Your task to perform on an android device: turn on data saver in the chrome app Image 0: 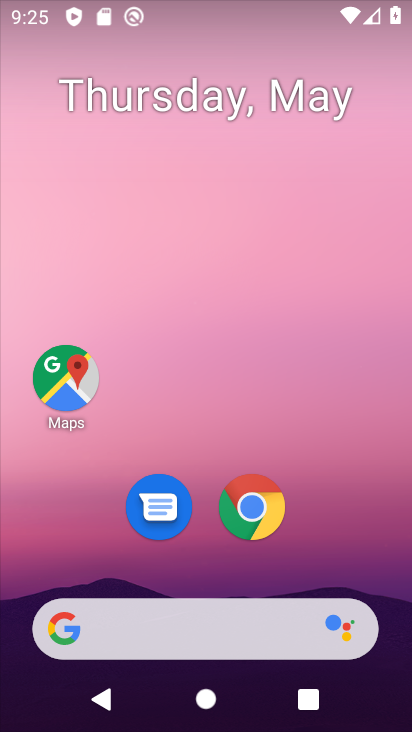
Step 0: drag from (334, 568) to (233, 164)
Your task to perform on an android device: turn on data saver in the chrome app Image 1: 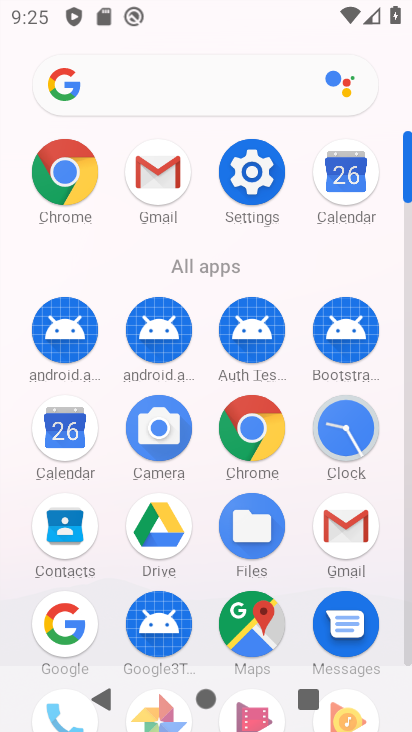
Step 1: click (64, 166)
Your task to perform on an android device: turn on data saver in the chrome app Image 2: 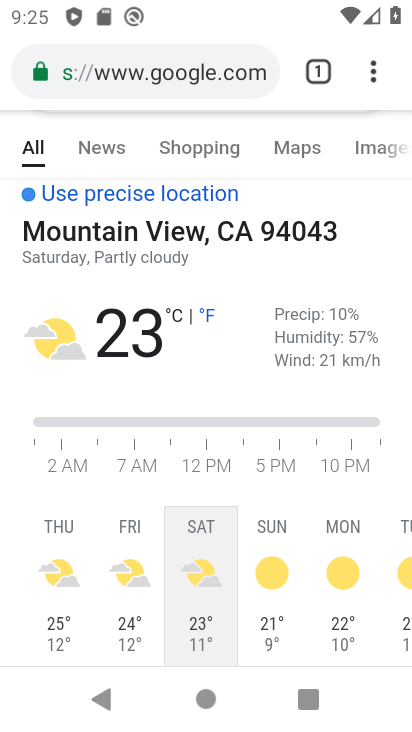
Step 2: click (374, 66)
Your task to perform on an android device: turn on data saver in the chrome app Image 3: 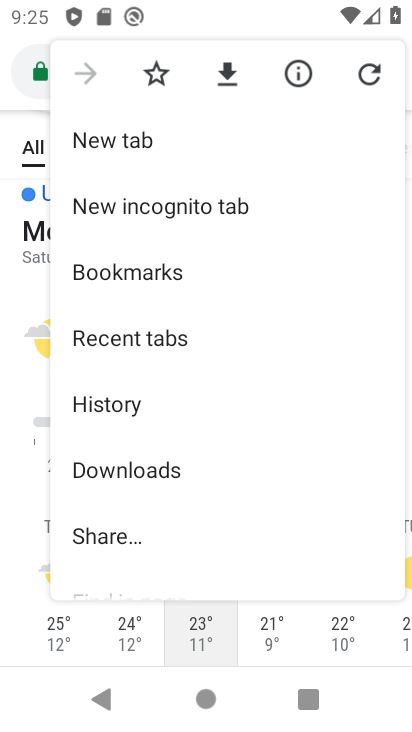
Step 3: drag from (267, 543) to (236, 181)
Your task to perform on an android device: turn on data saver in the chrome app Image 4: 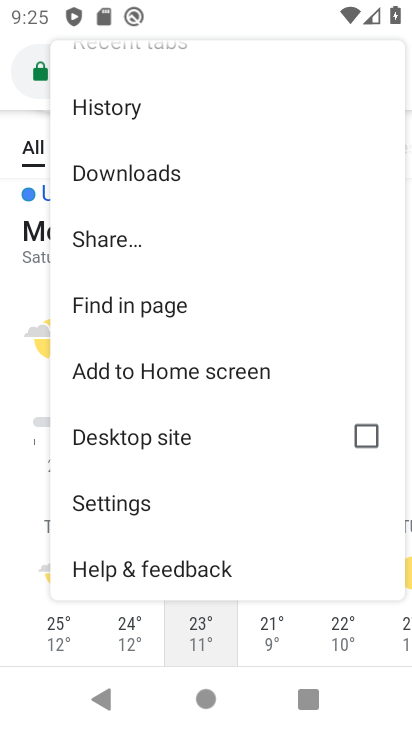
Step 4: click (186, 508)
Your task to perform on an android device: turn on data saver in the chrome app Image 5: 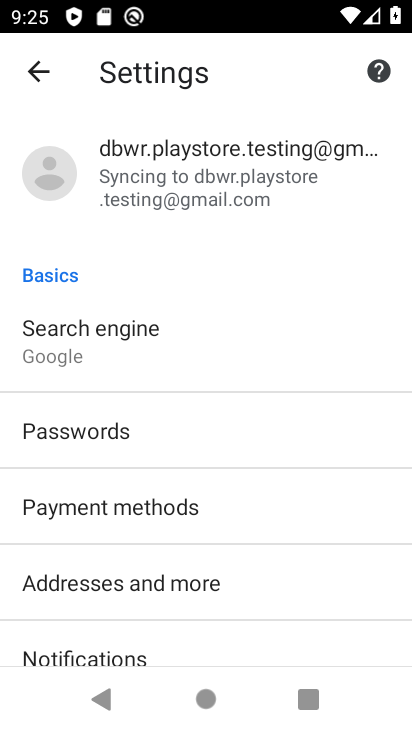
Step 5: drag from (171, 642) to (126, 207)
Your task to perform on an android device: turn on data saver in the chrome app Image 6: 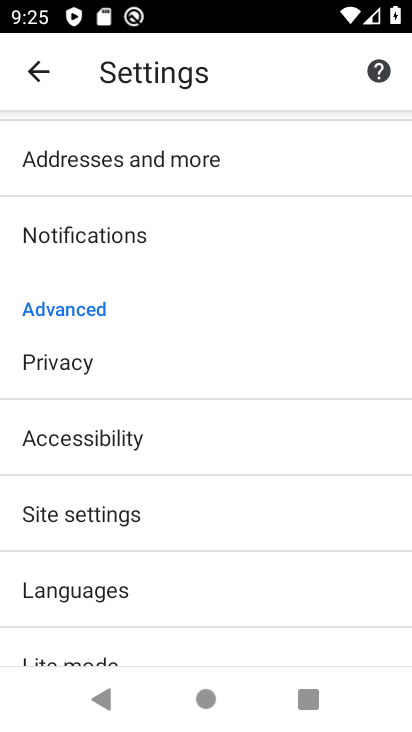
Step 6: drag from (136, 626) to (117, 403)
Your task to perform on an android device: turn on data saver in the chrome app Image 7: 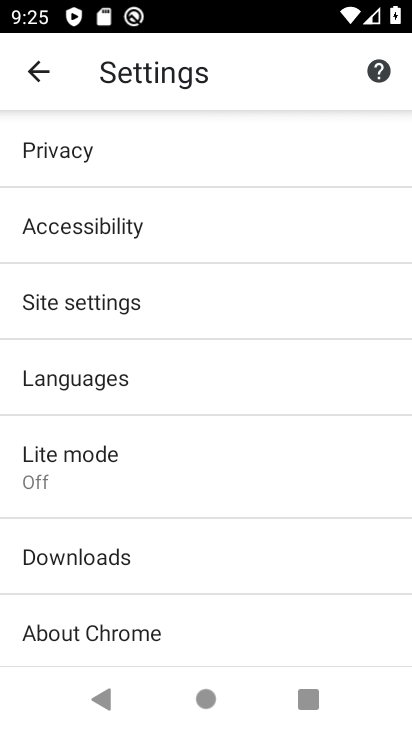
Step 7: click (102, 468)
Your task to perform on an android device: turn on data saver in the chrome app Image 8: 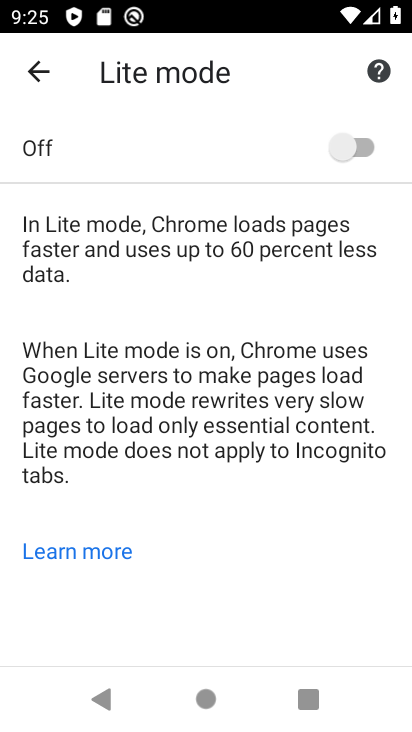
Step 8: click (351, 148)
Your task to perform on an android device: turn on data saver in the chrome app Image 9: 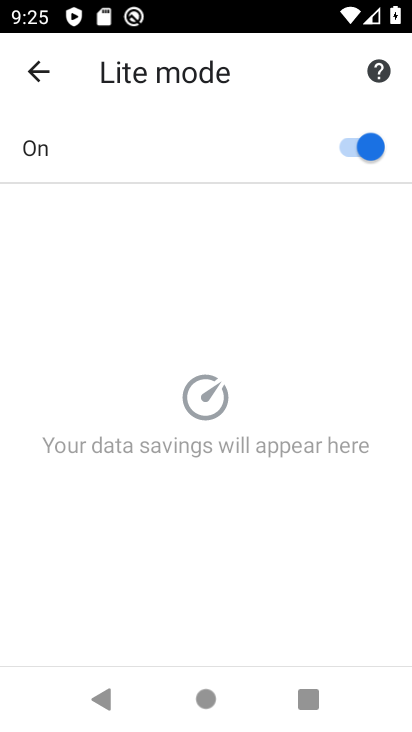
Step 9: task complete